Your task to perform on an android device: toggle wifi Image 0: 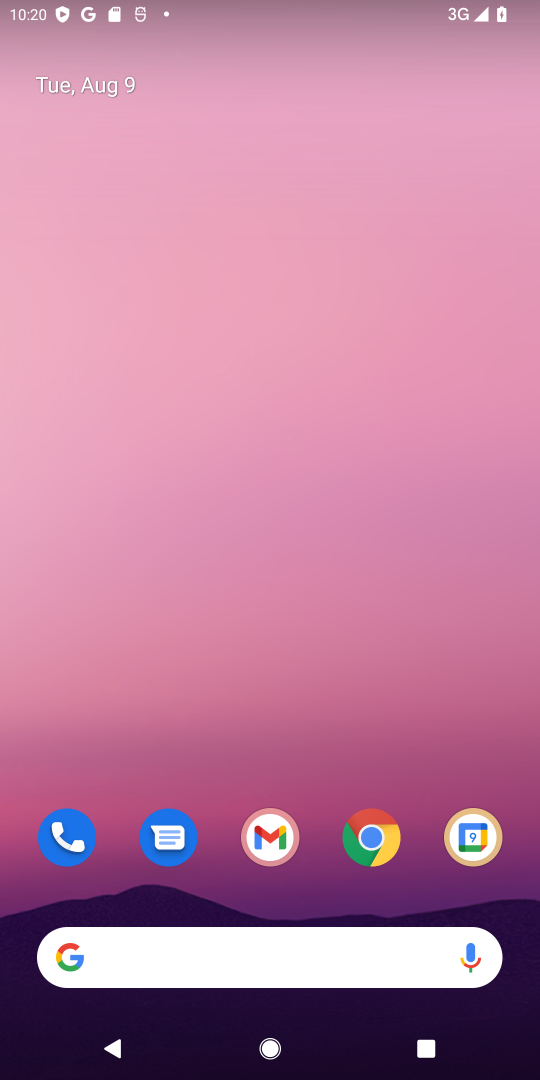
Step 0: drag from (304, 890) to (207, 19)
Your task to perform on an android device: toggle wifi Image 1: 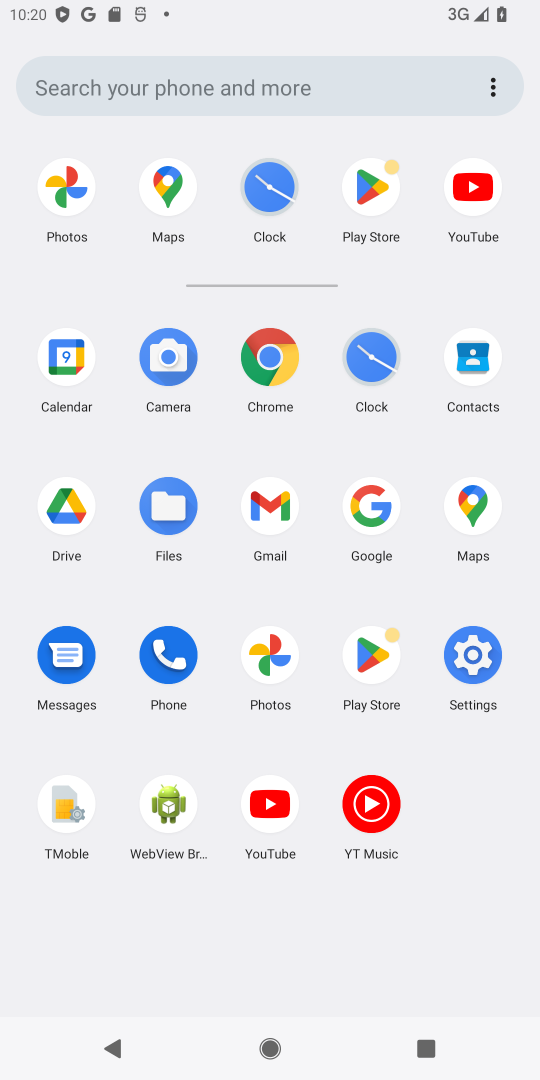
Step 1: click (479, 661)
Your task to perform on an android device: toggle wifi Image 2: 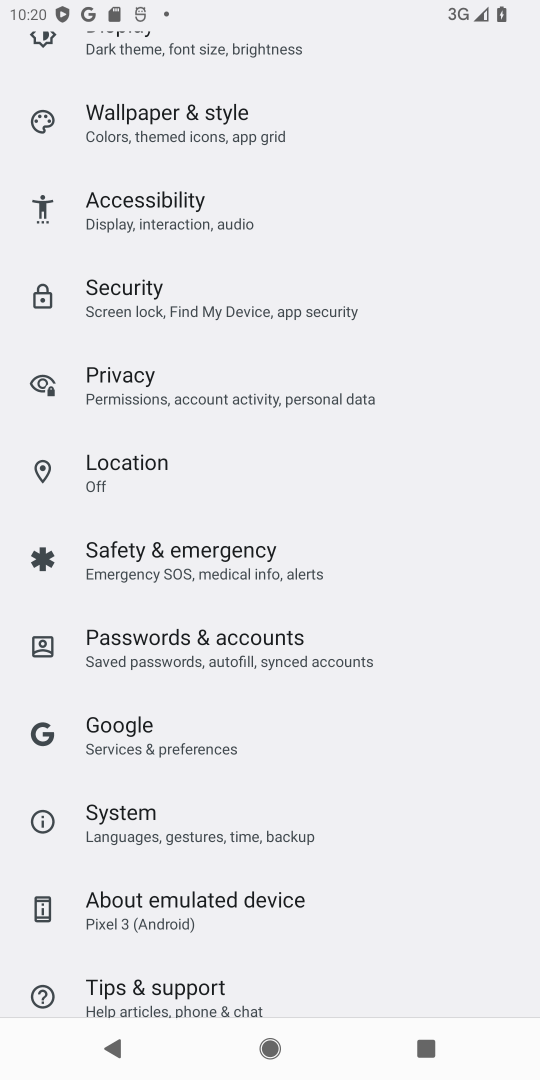
Step 2: drag from (183, 99) to (208, 793)
Your task to perform on an android device: toggle wifi Image 3: 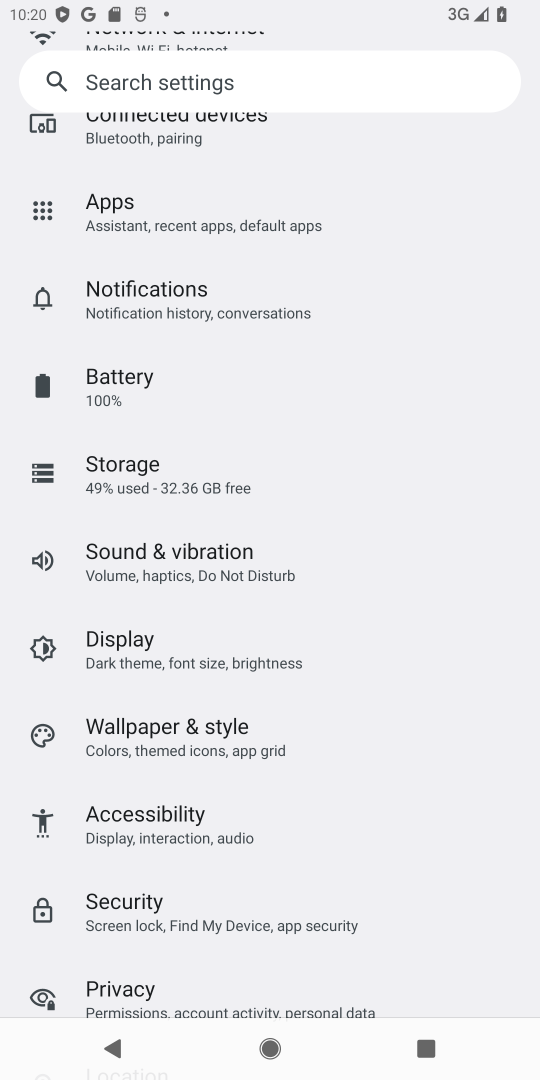
Step 3: drag from (178, 267) to (184, 823)
Your task to perform on an android device: toggle wifi Image 4: 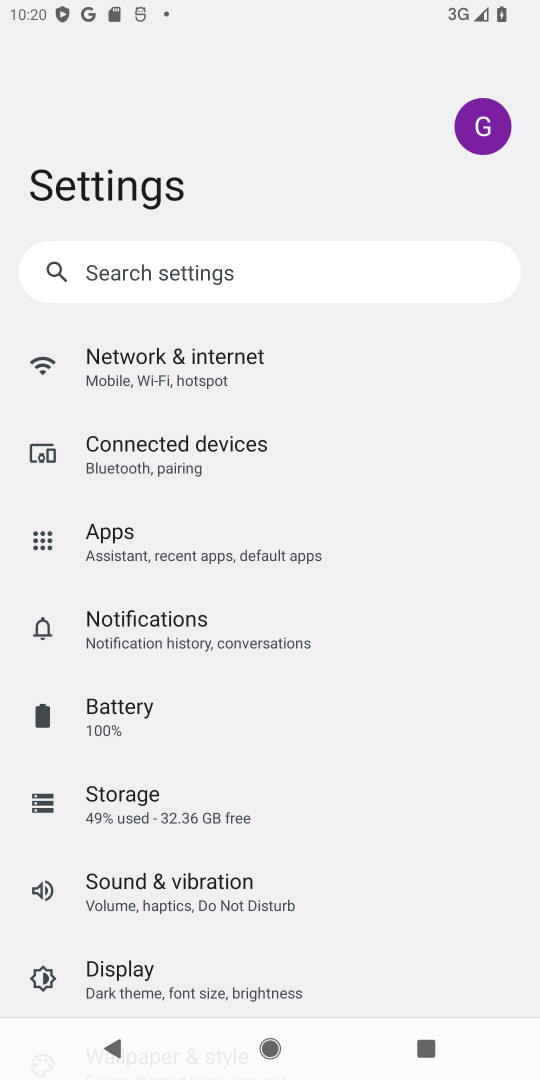
Step 4: click (162, 363)
Your task to perform on an android device: toggle wifi Image 5: 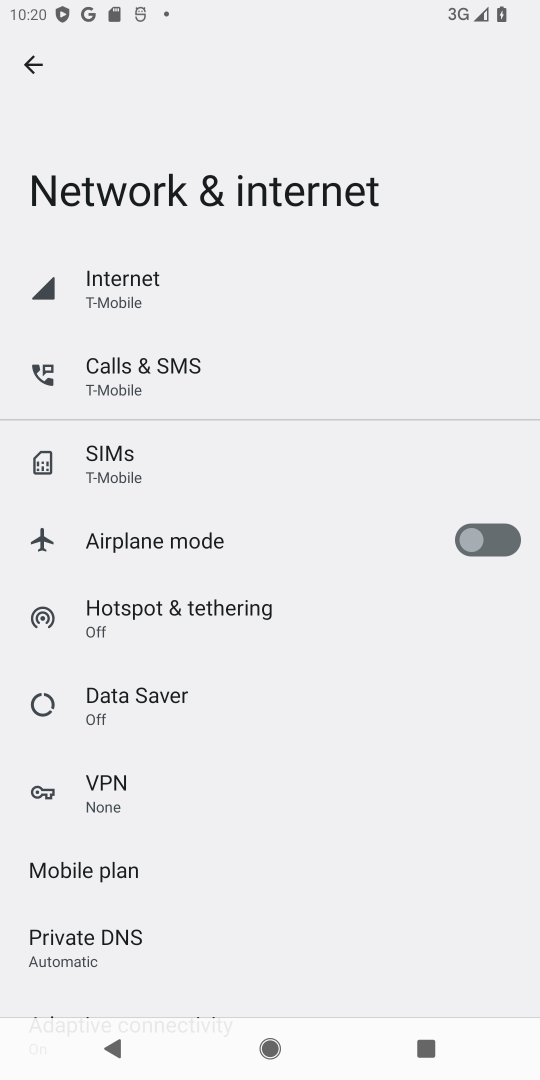
Step 5: click (114, 285)
Your task to perform on an android device: toggle wifi Image 6: 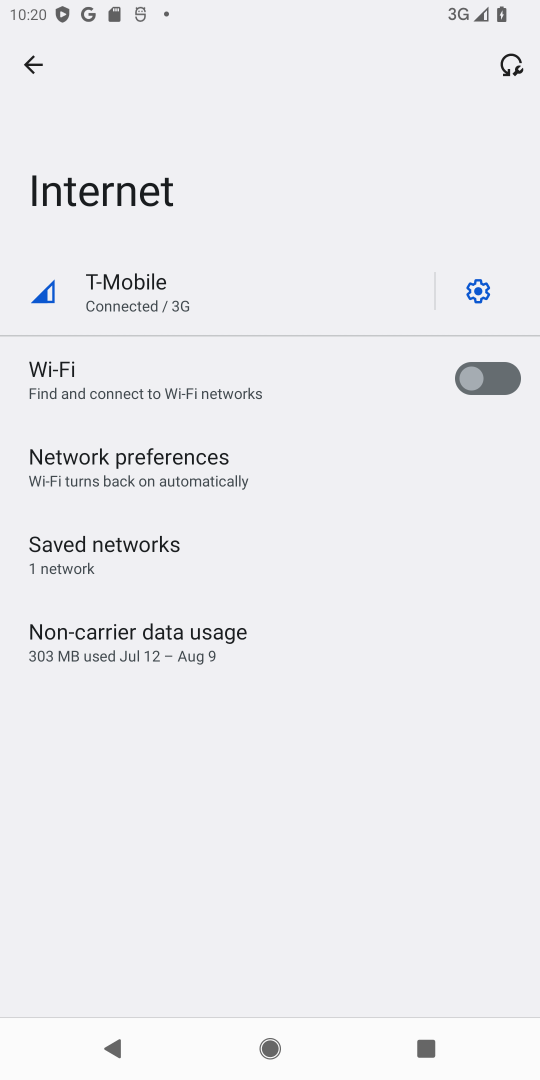
Step 6: click (500, 379)
Your task to perform on an android device: toggle wifi Image 7: 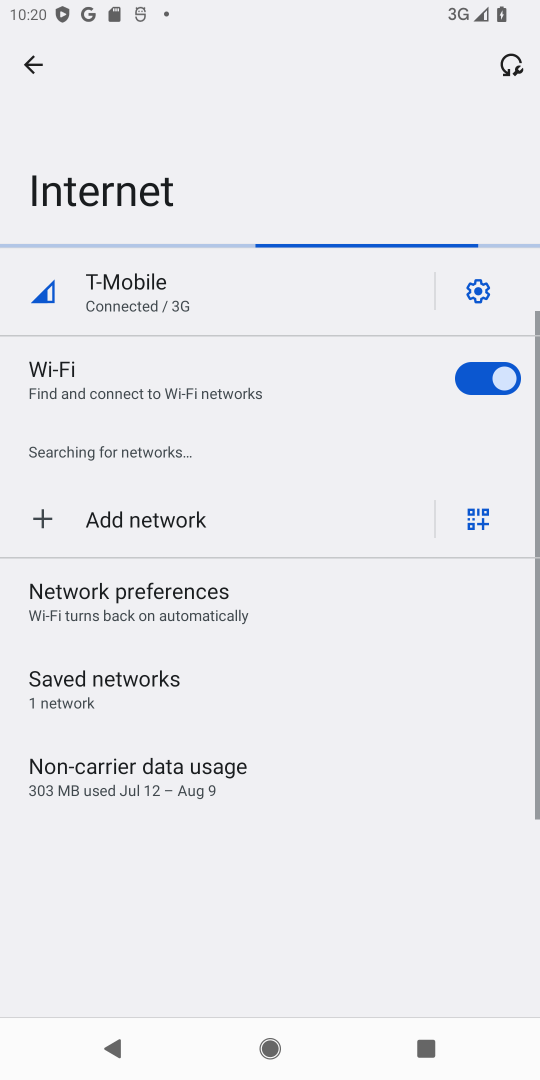
Step 7: task complete